Your task to perform on an android device: Go to ESPN.com Image 0: 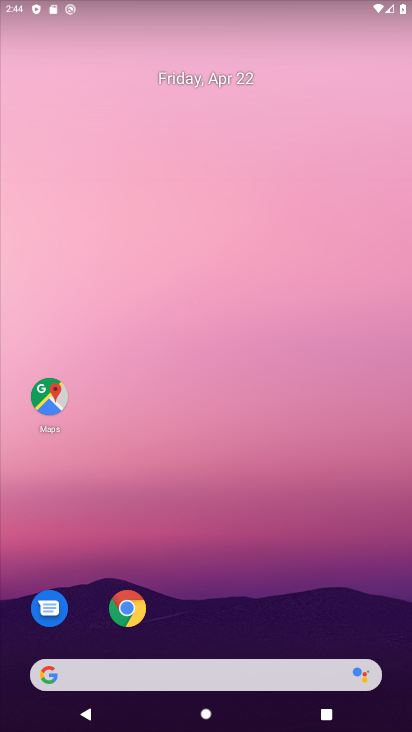
Step 0: drag from (217, 657) to (227, 99)
Your task to perform on an android device: Go to ESPN.com Image 1: 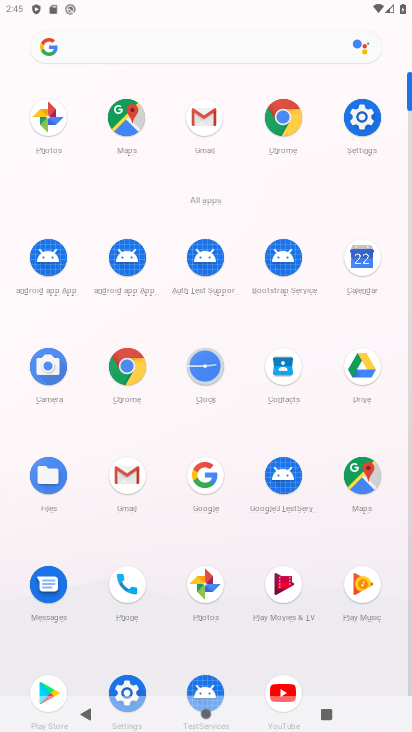
Step 1: click (275, 111)
Your task to perform on an android device: Go to ESPN.com Image 2: 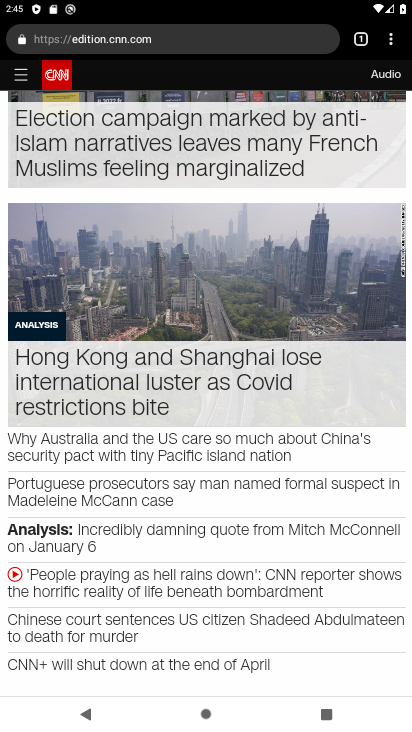
Step 2: click (158, 48)
Your task to perform on an android device: Go to ESPN.com Image 3: 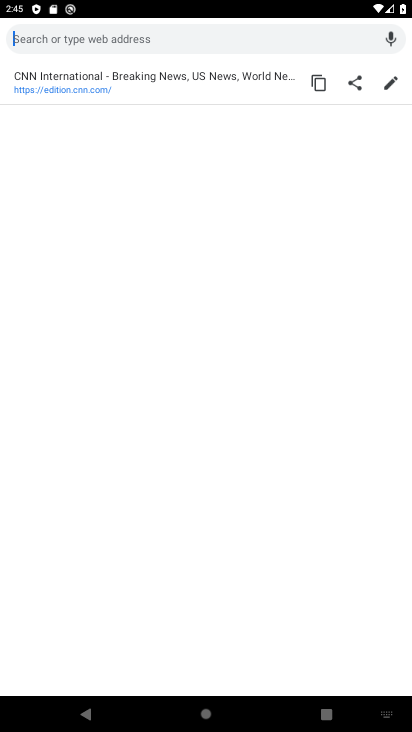
Step 3: type "espn"
Your task to perform on an android device: Go to ESPN.com Image 4: 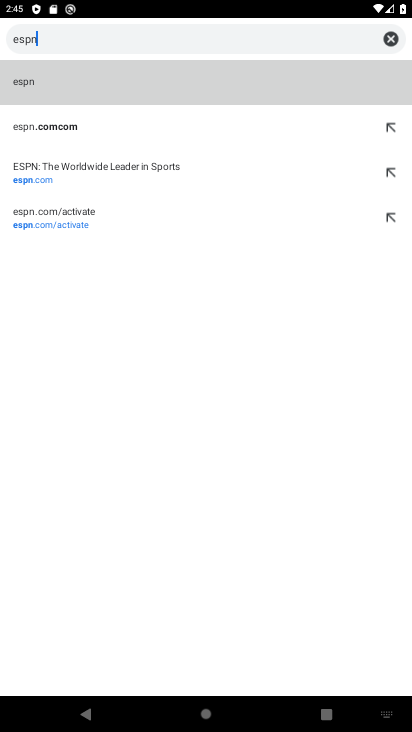
Step 4: click (64, 80)
Your task to perform on an android device: Go to ESPN.com Image 5: 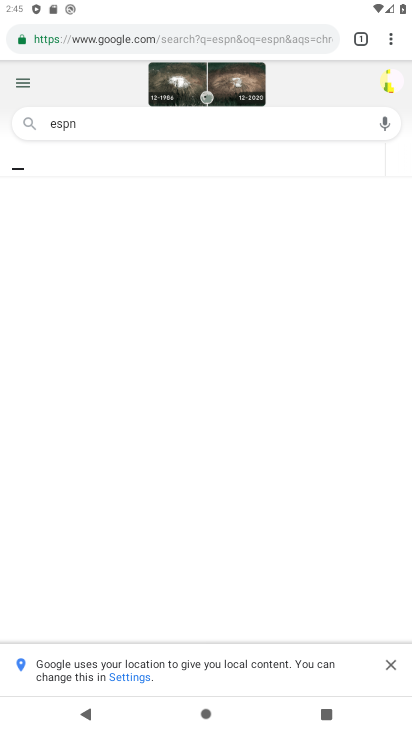
Step 5: click (391, 664)
Your task to perform on an android device: Go to ESPN.com Image 6: 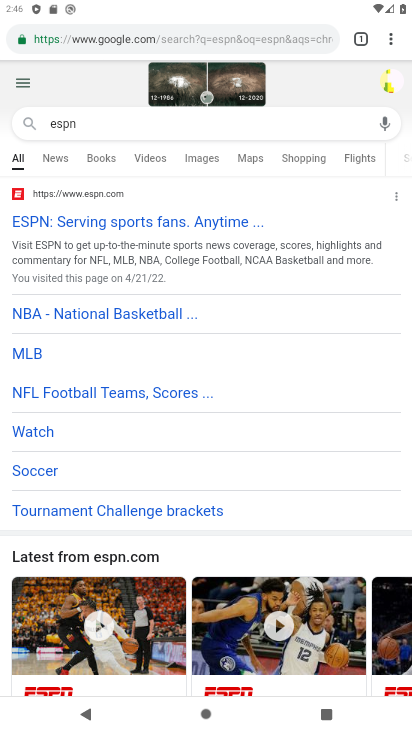
Step 6: click (68, 227)
Your task to perform on an android device: Go to ESPN.com Image 7: 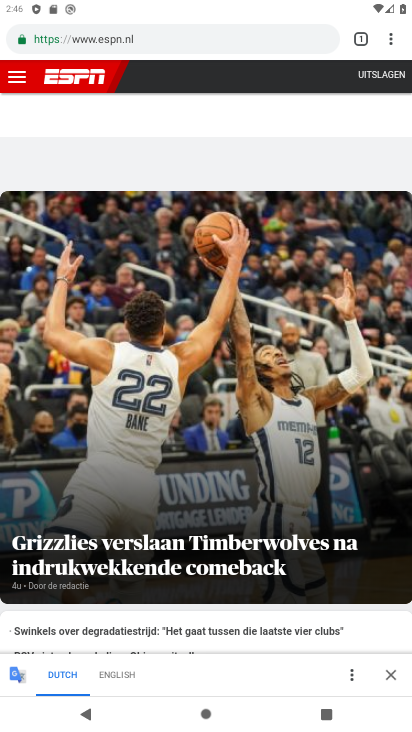
Step 7: task complete